Your task to perform on an android device: Go to Amazon Image 0: 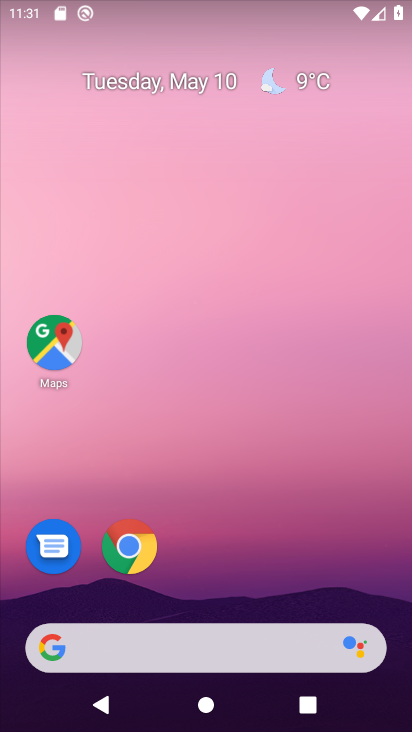
Step 0: press home button
Your task to perform on an android device: Go to Amazon Image 1: 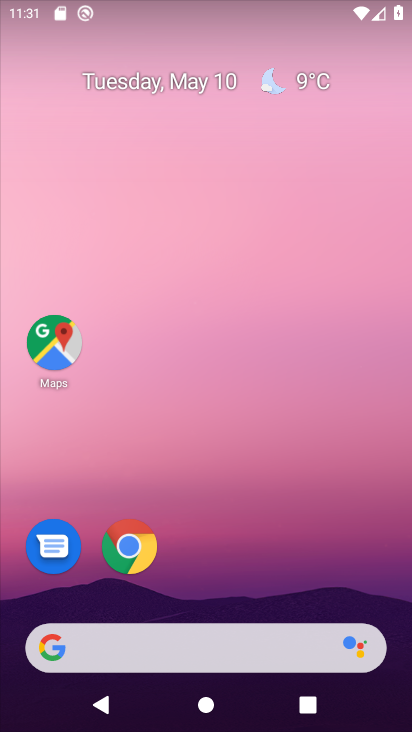
Step 1: drag from (328, 423) to (317, 242)
Your task to perform on an android device: Go to Amazon Image 2: 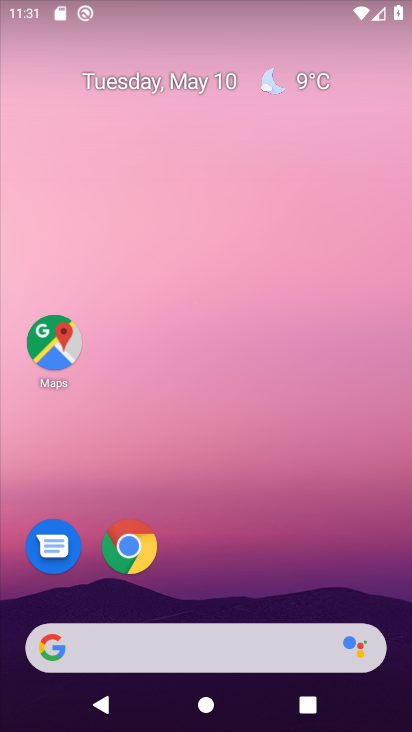
Step 2: drag from (386, 527) to (370, 170)
Your task to perform on an android device: Go to Amazon Image 3: 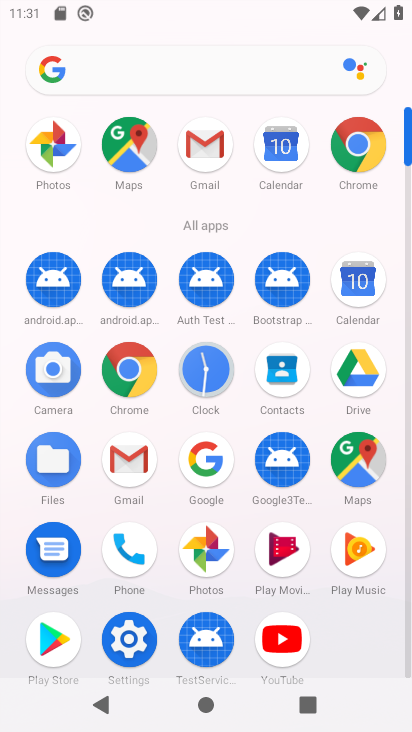
Step 3: click (137, 384)
Your task to perform on an android device: Go to Amazon Image 4: 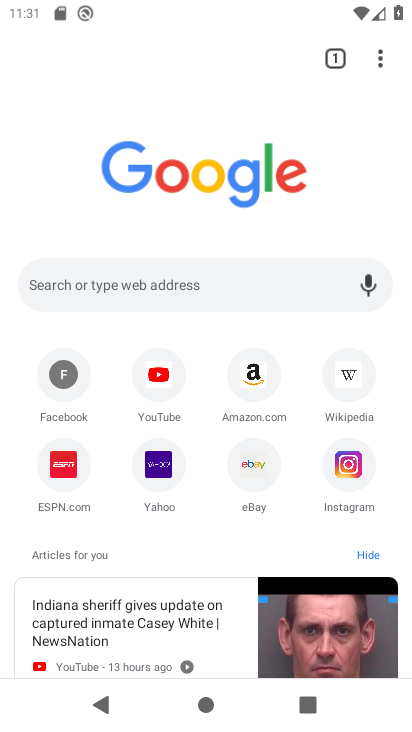
Step 4: click (240, 386)
Your task to perform on an android device: Go to Amazon Image 5: 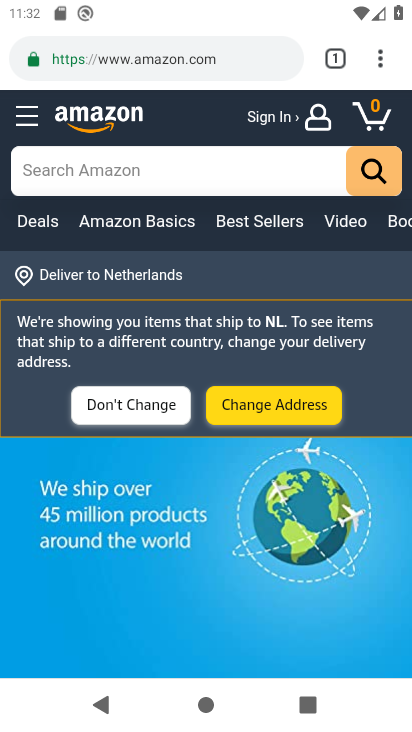
Step 5: task complete